Your task to perform on an android device: add a contact in the contacts app Image 0: 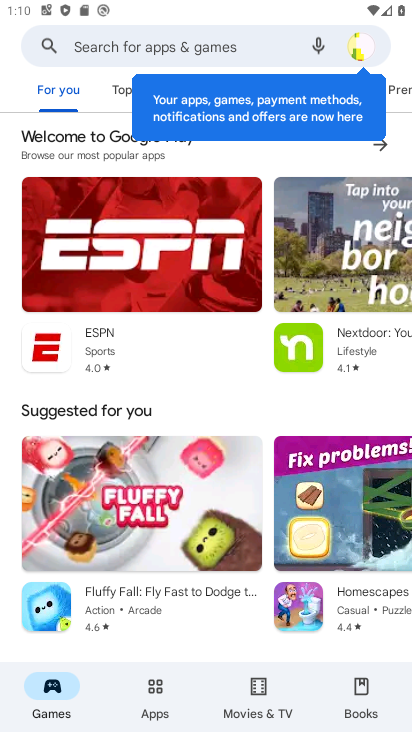
Step 0: press home button
Your task to perform on an android device: add a contact in the contacts app Image 1: 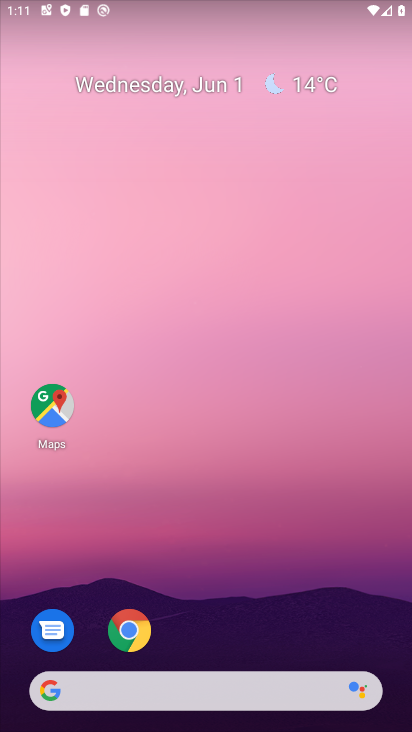
Step 1: drag from (217, 649) to (250, 131)
Your task to perform on an android device: add a contact in the contacts app Image 2: 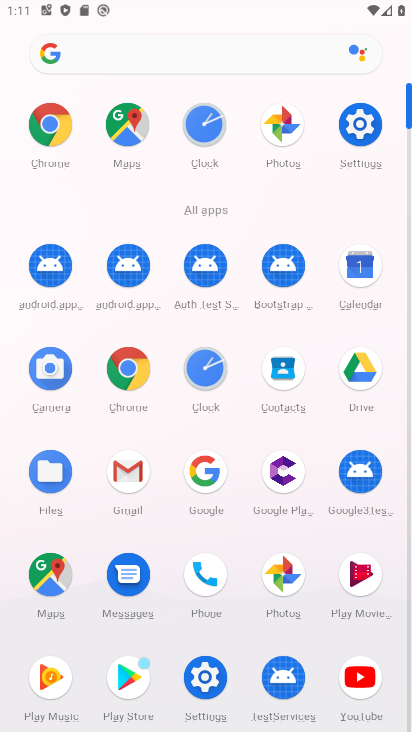
Step 2: click (285, 360)
Your task to perform on an android device: add a contact in the contacts app Image 3: 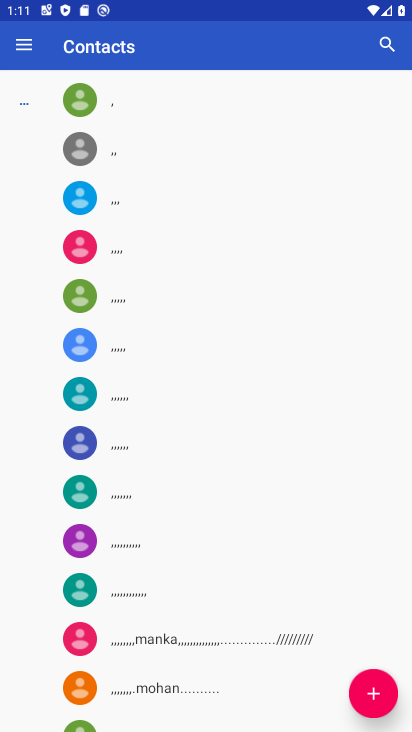
Step 3: click (368, 690)
Your task to perform on an android device: add a contact in the contacts app Image 4: 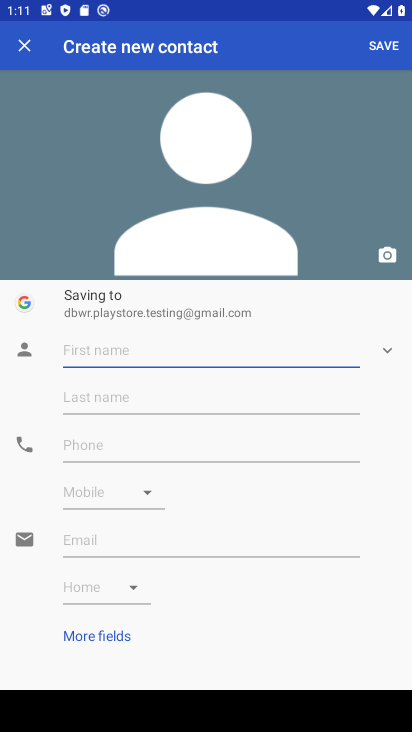
Step 4: type "hfcdxfnh"
Your task to perform on an android device: add a contact in the contacts app Image 5: 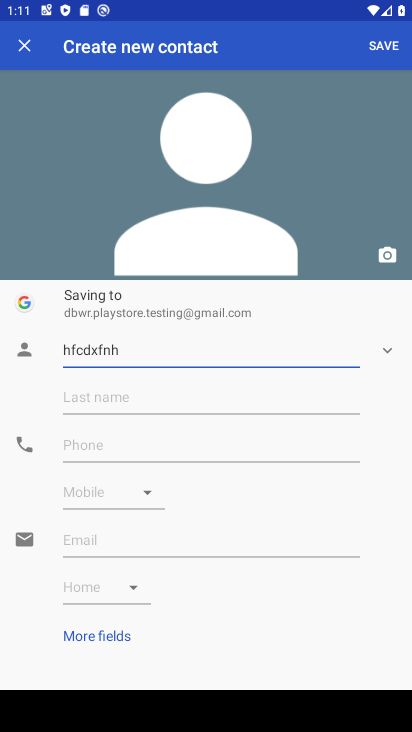
Step 5: click (382, 45)
Your task to perform on an android device: add a contact in the contacts app Image 6: 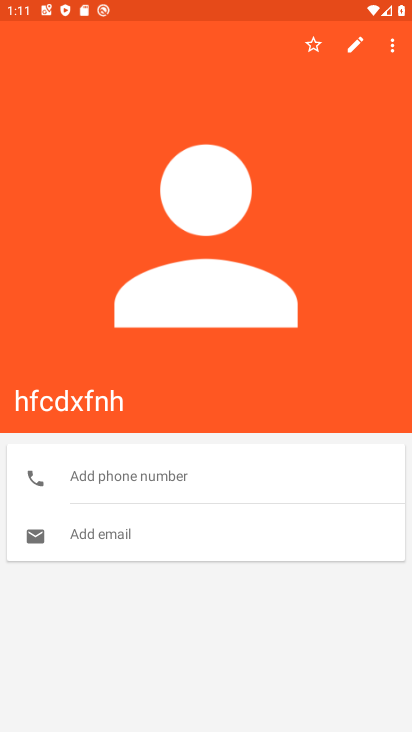
Step 6: task complete